Your task to perform on an android device: visit the assistant section in the google photos Image 0: 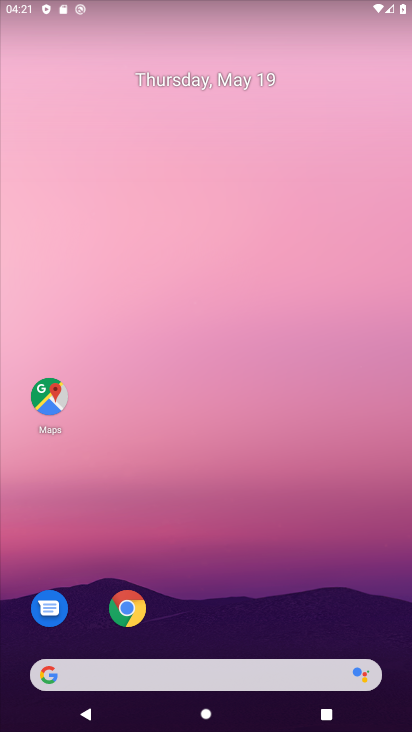
Step 0: drag from (272, 607) to (275, 253)
Your task to perform on an android device: visit the assistant section in the google photos Image 1: 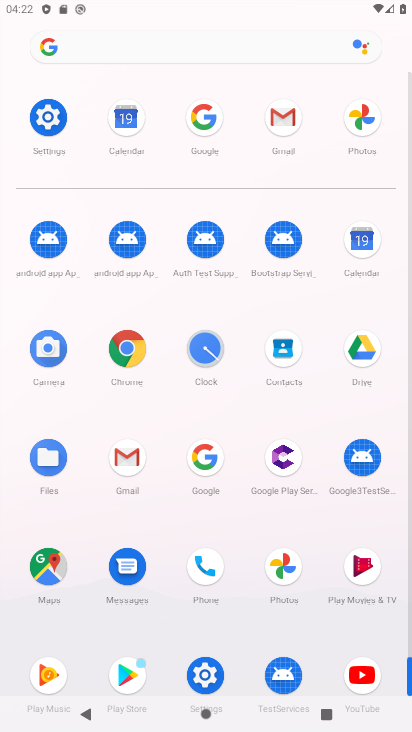
Step 1: click (360, 116)
Your task to perform on an android device: visit the assistant section in the google photos Image 2: 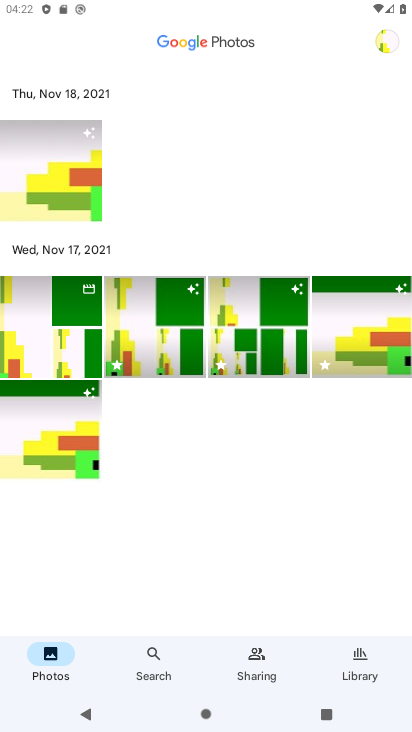
Step 2: click (362, 666)
Your task to perform on an android device: visit the assistant section in the google photos Image 3: 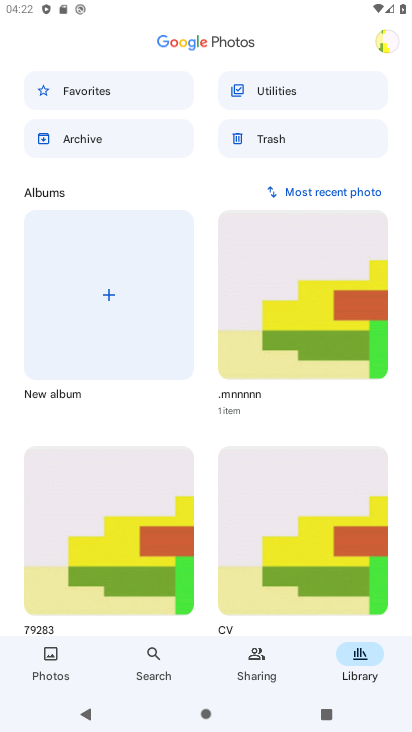
Step 3: click (299, 85)
Your task to perform on an android device: visit the assistant section in the google photos Image 4: 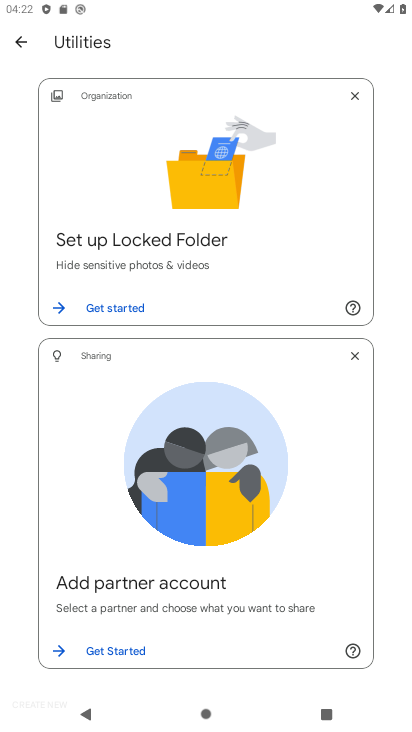
Step 4: drag from (186, 484) to (239, 365)
Your task to perform on an android device: visit the assistant section in the google photos Image 5: 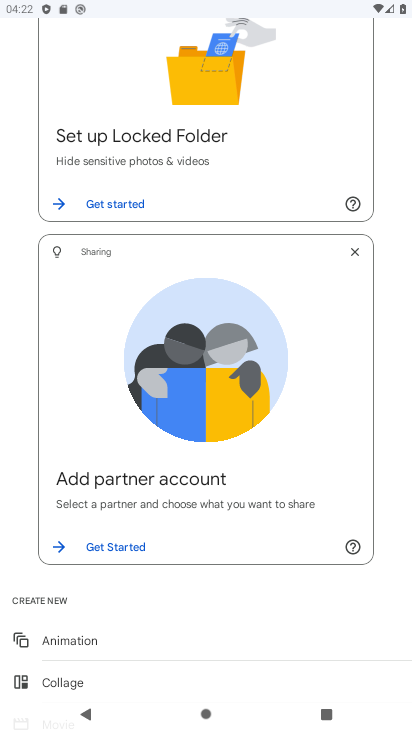
Step 5: drag from (156, 604) to (197, 498)
Your task to perform on an android device: visit the assistant section in the google photos Image 6: 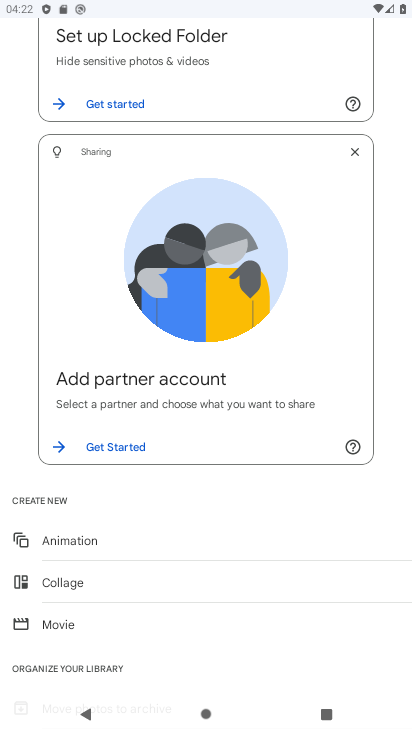
Step 6: drag from (80, 624) to (151, 529)
Your task to perform on an android device: visit the assistant section in the google photos Image 7: 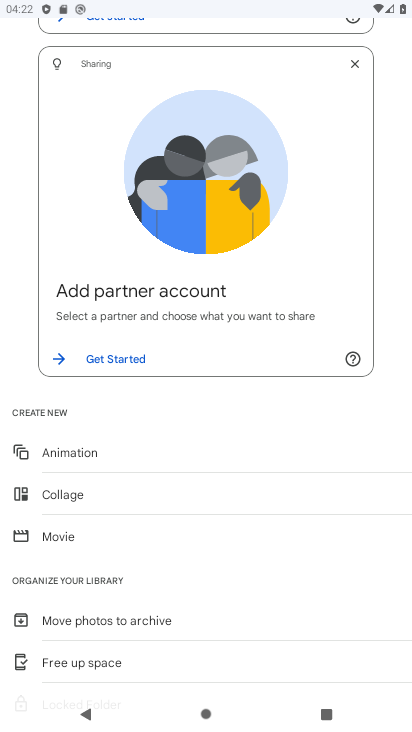
Step 7: drag from (102, 627) to (148, 564)
Your task to perform on an android device: visit the assistant section in the google photos Image 8: 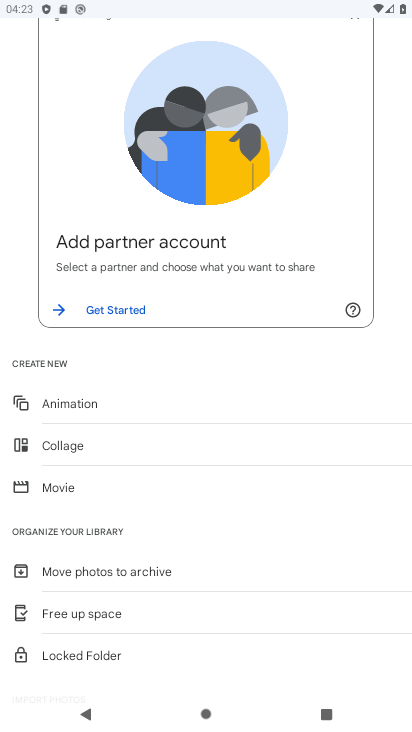
Step 8: drag from (132, 621) to (166, 543)
Your task to perform on an android device: visit the assistant section in the google photos Image 9: 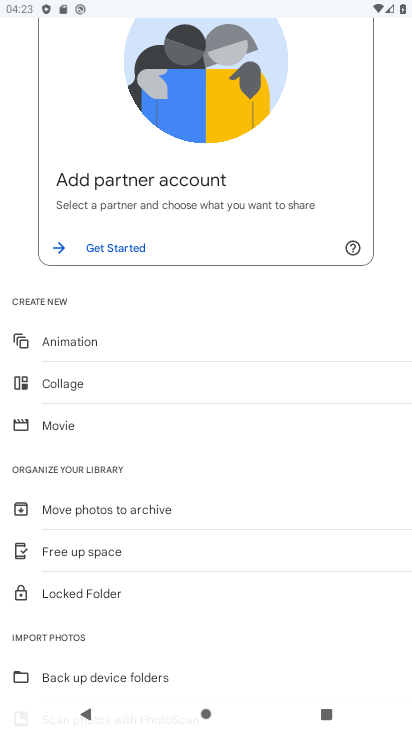
Step 9: click (94, 595)
Your task to perform on an android device: visit the assistant section in the google photos Image 10: 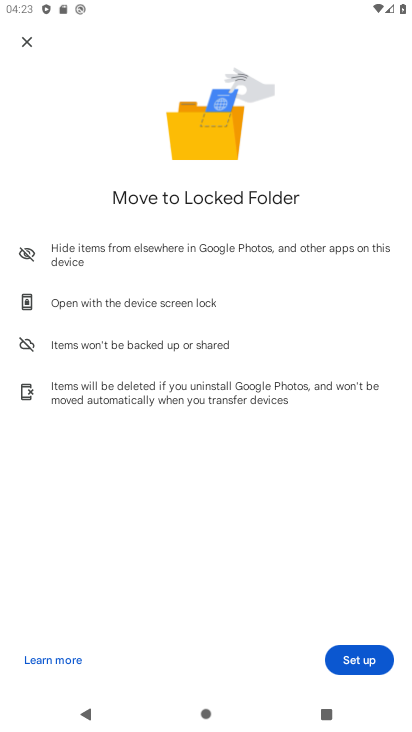
Step 10: click (18, 40)
Your task to perform on an android device: visit the assistant section in the google photos Image 11: 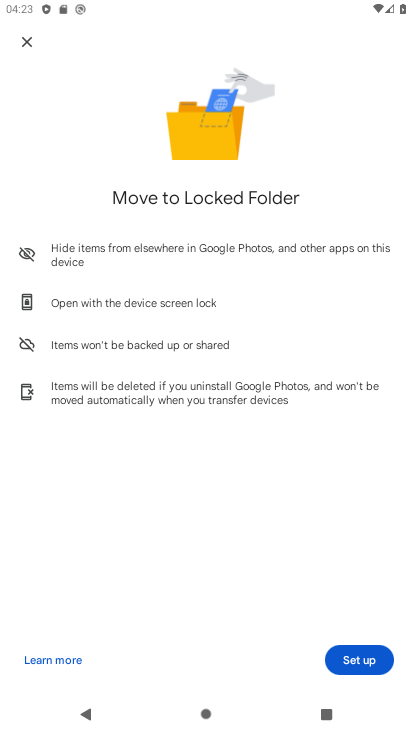
Step 11: click (28, 42)
Your task to perform on an android device: visit the assistant section in the google photos Image 12: 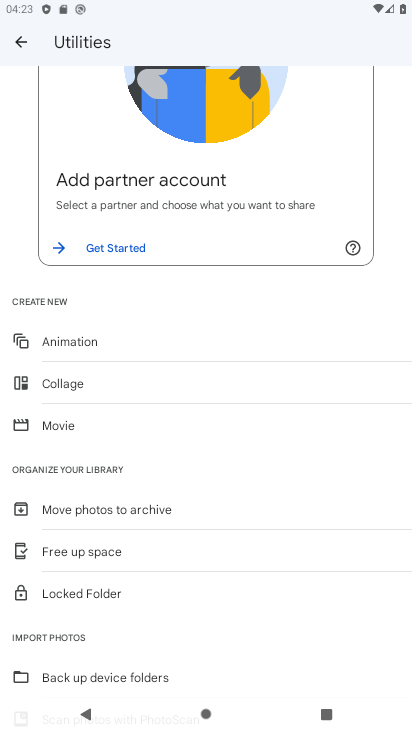
Step 12: task complete